Your task to perform on an android device: Search for a new lawnmower on Lowes.com Image 0: 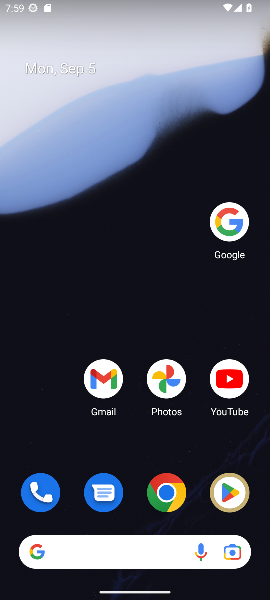
Step 0: click (224, 213)
Your task to perform on an android device: Search for a new lawnmower on Lowes.com Image 1: 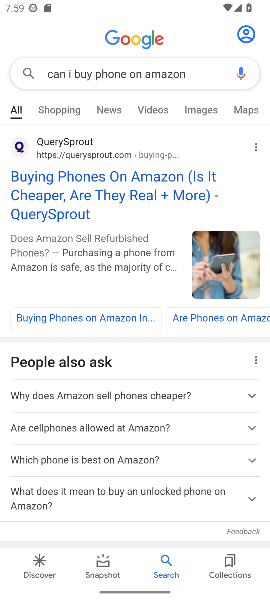
Step 1: click (199, 62)
Your task to perform on an android device: Search for a new lawnmower on Lowes.com Image 2: 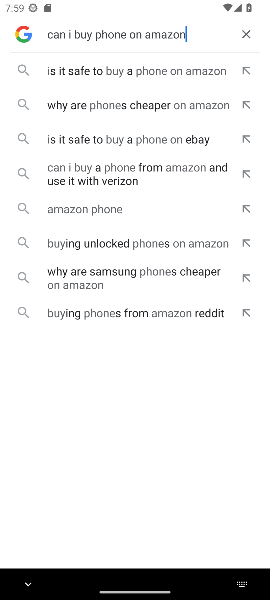
Step 2: click (237, 26)
Your task to perform on an android device: Search for a new lawnmower on Lowes.com Image 3: 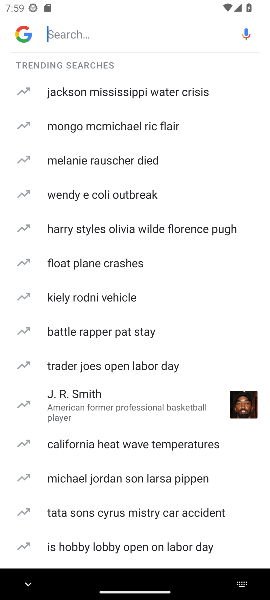
Step 3: click (133, 34)
Your task to perform on an android device: Search for a new lawnmower on Lowes.com Image 4: 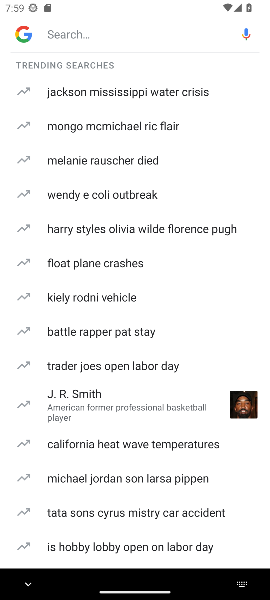
Step 4: type " new lawnmower on Lowes.com "
Your task to perform on an android device: Search for a new lawnmower on Lowes.com Image 5: 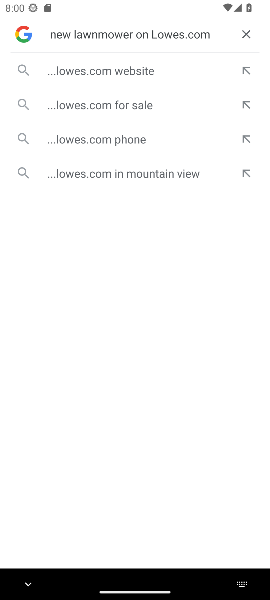
Step 5: click (71, 69)
Your task to perform on an android device: Search for a new lawnmower on Lowes.com Image 6: 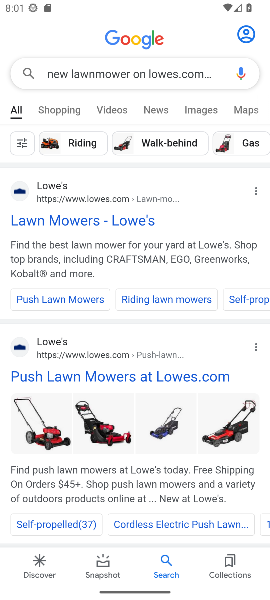
Step 6: task complete